Your task to perform on an android device: Go to wifi settings Image 0: 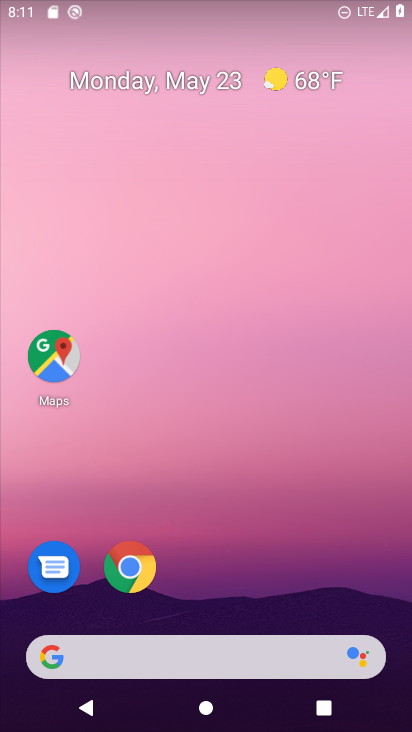
Step 0: drag from (219, 567) to (266, 232)
Your task to perform on an android device: Go to wifi settings Image 1: 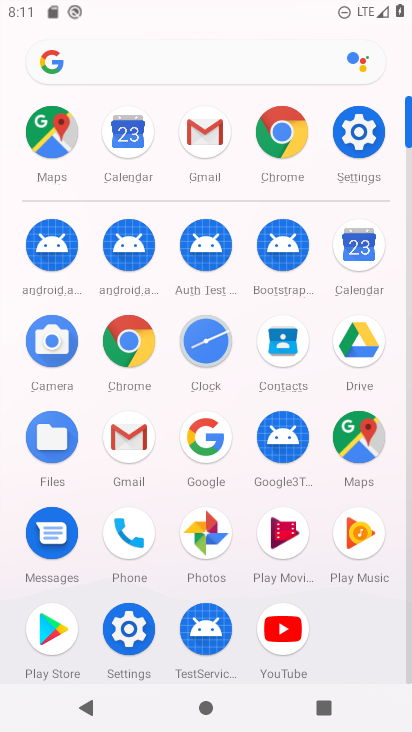
Step 1: click (127, 617)
Your task to perform on an android device: Go to wifi settings Image 2: 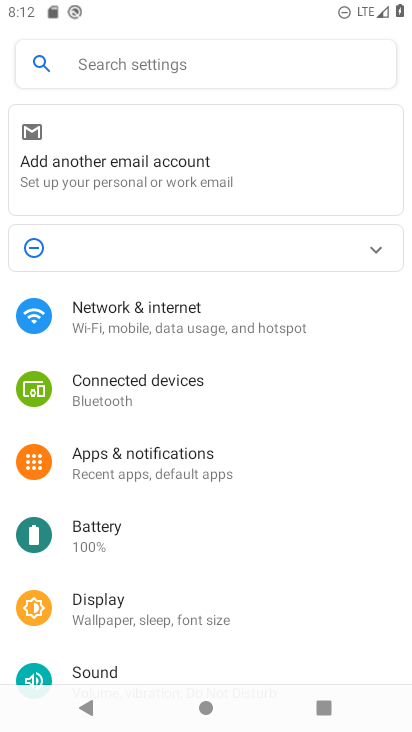
Step 2: click (134, 304)
Your task to perform on an android device: Go to wifi settings Image 3: 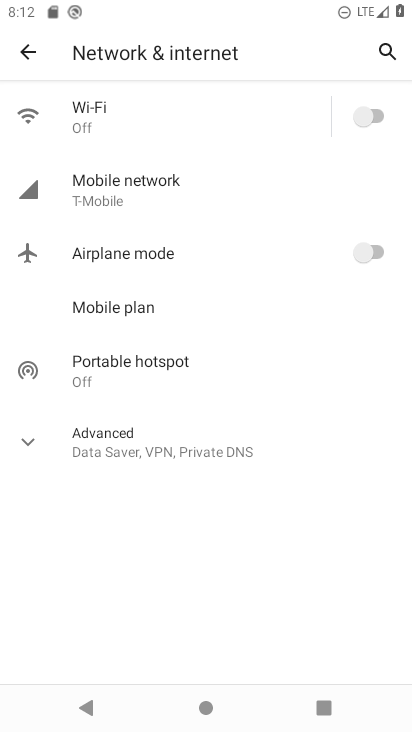
Step 3: click (206, 108)
Your task to perform on an android device: Go to wifi settings Image 4: 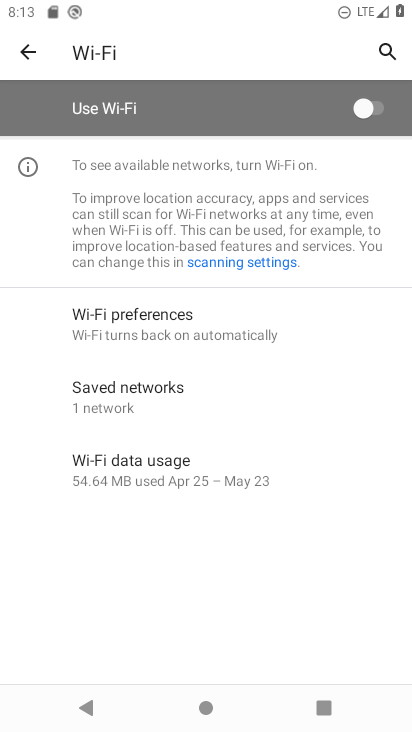
Step 4: task complete